Your task to perform on an android device: check android version Image 0: 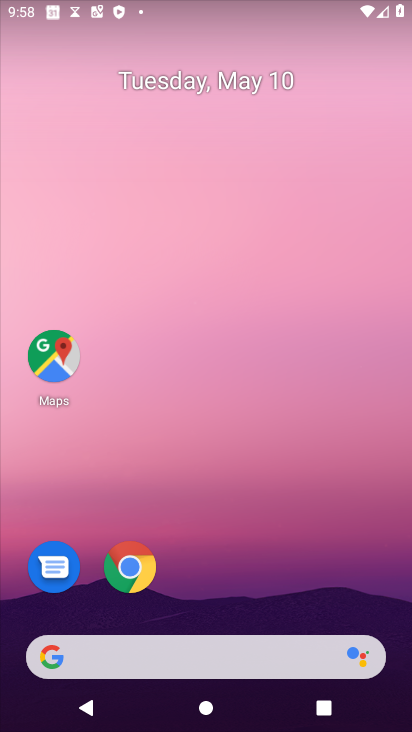
Step 0: drag from (62, 590) to (282, 99)
Your task to perform on an android device: check android version Image 1: 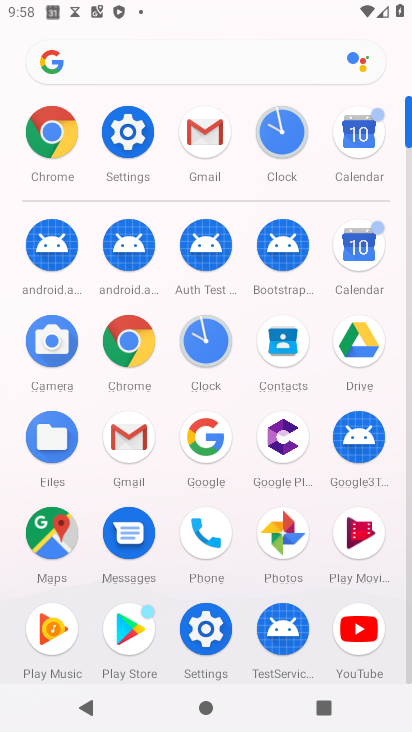
Step 1: click (121, 133)
Your task to perform on an android device: check android version Image 2: 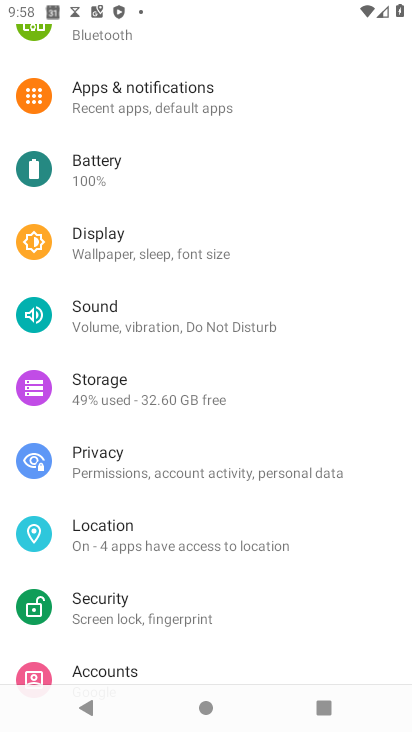
Step 2: drag from (162, 631) to (283, 74)
Your task to perform on an android device: check android version Image 3: 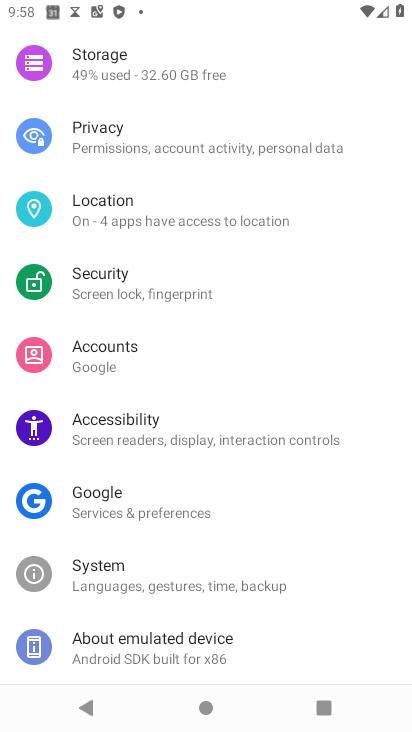
Step 3: drag from (154, 625) to (257, 244)
Your task to perform on an android device: check android version Image 4: 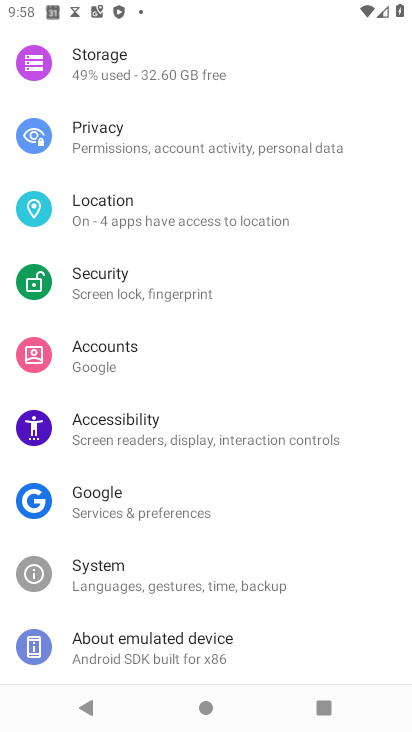
Step 4: click (150, 647)
Your task to perform on an android device: check android version Image 5: 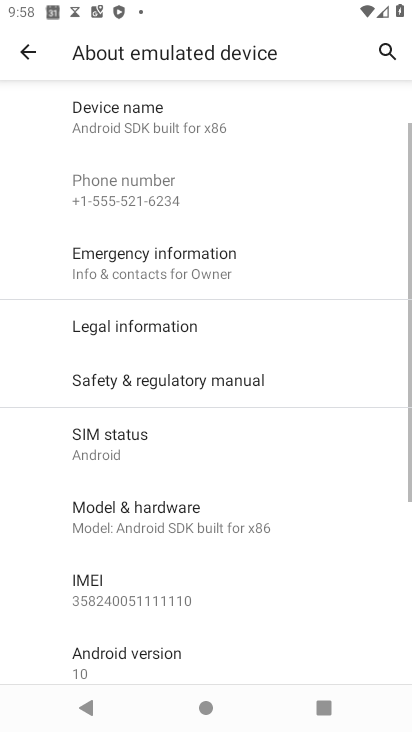
Step 5: drag from (150, 647) to (242, 179)
Your task to perform on an android device: check android version Image 6: 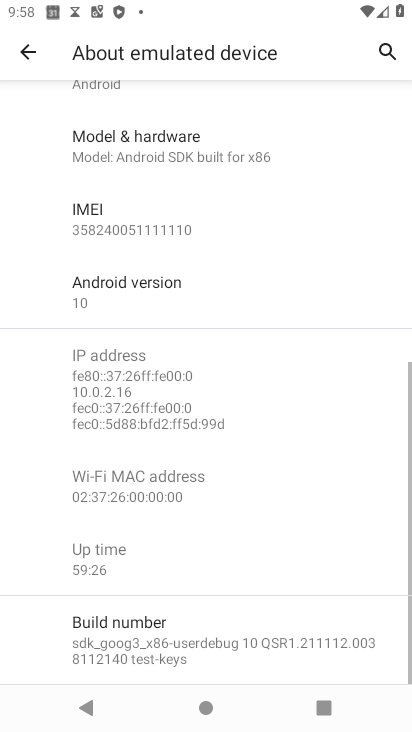
Step 6: click (104, 302)
Your task to perform on an android device: check android version Image 7: 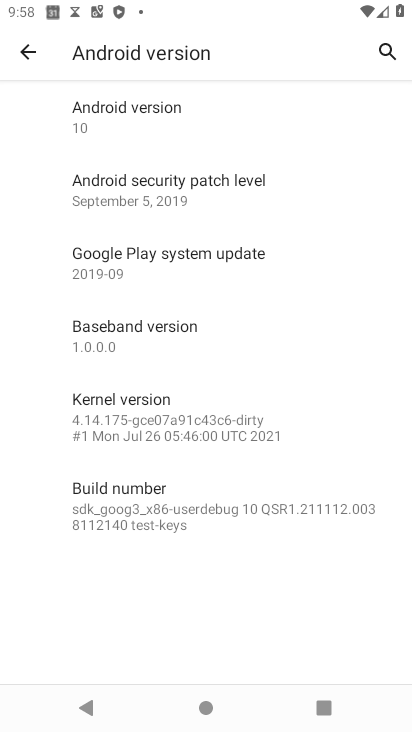
Step 7: task complete